Your task to perform on an android device: Open the phone app and click the voicemail tab. Image 0: 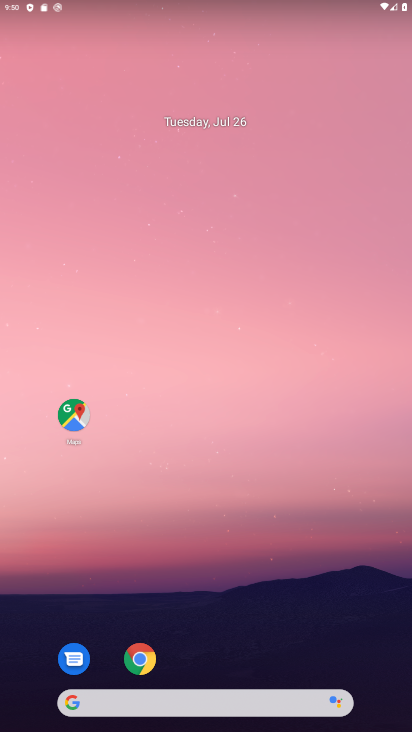
Step 0: drag from (392, 712) to (376, 131)
Your task to perform on an android device: Open the phone app and click the voicemail tab. Image 1: 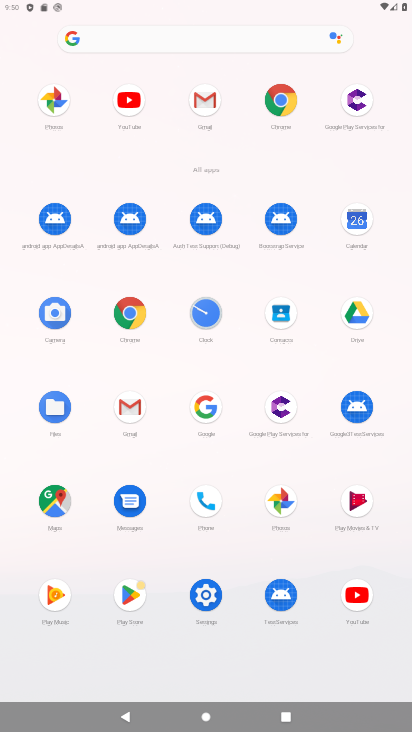
Step 1: click (203, 500)
Your task to perform on an android device: Open the phone app and click the voicemail tab. Image 2: 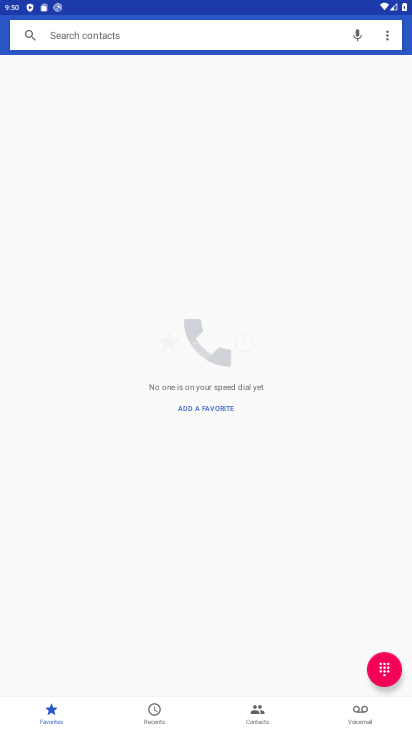
Step 2: click (359, 700)
Your task to perform on an android device: Open the phone app and click the voicemail tab. Image 3: 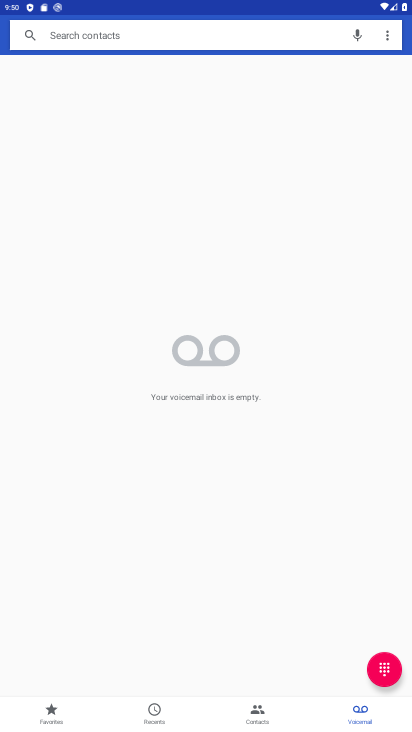
Step 3: task complete